Your task to perform on an android device: Go to ESPN.com Image 0: 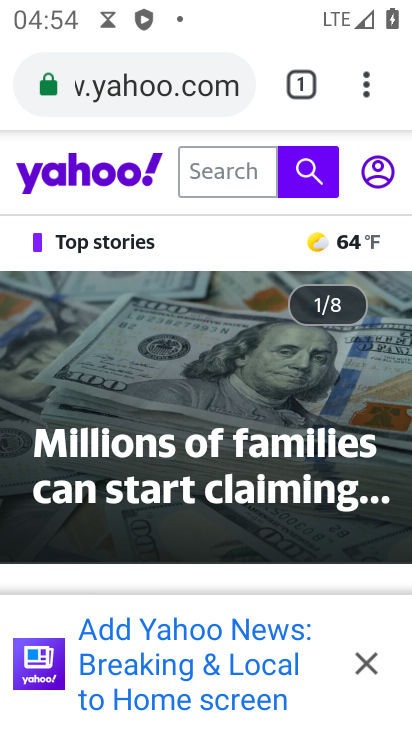
Step 0: click (225, 86)
Your task to perform on an android device: Go to ESPN.com Image 1: 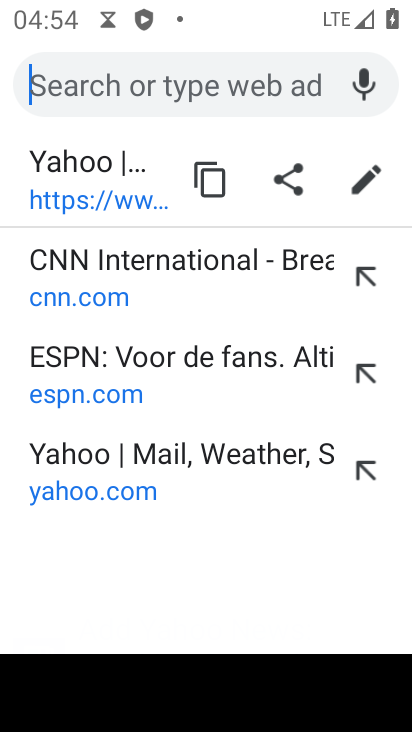
Step 1: type "ESPN.com"
Your task to perform on an android device: Go to ESPN.com Image 2: 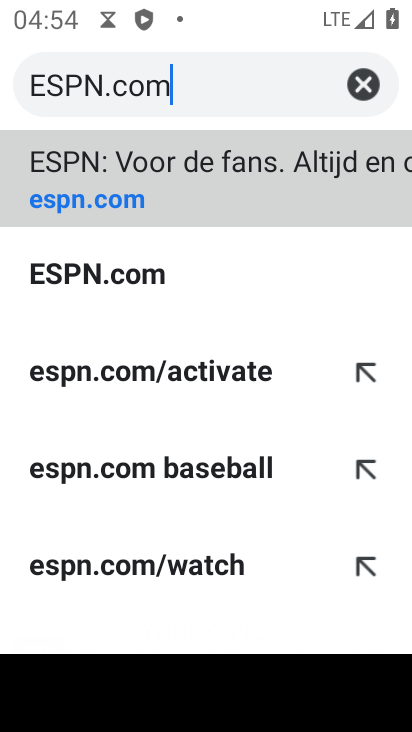
Step 2: click (120, 161)
Your task to perform on an android device: Go to ESPN.com Image 3: 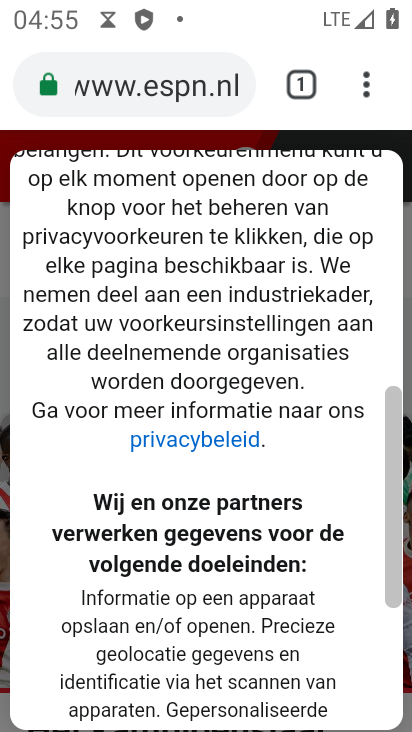
Step 3: task complete